Your task to perform on an android device: Open Youtube and go to the subscriptions tab Image 0: 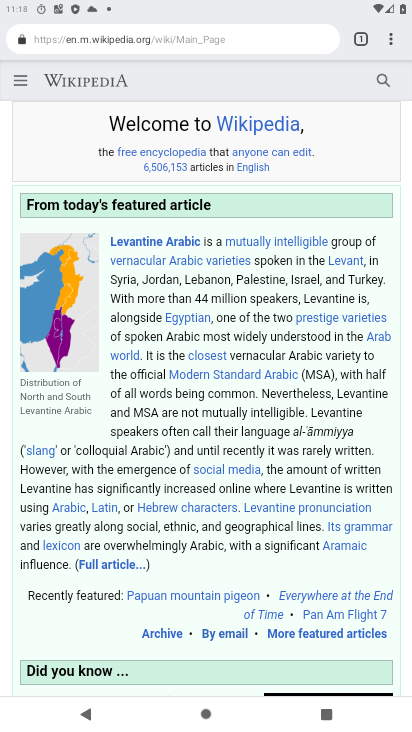
Step 0: press back button
Your task to perform on an android device: Open Youtube and go to the subscriptions tab Image 1: 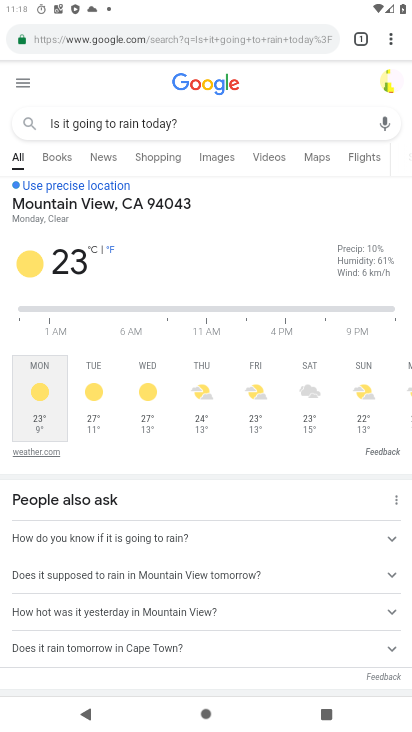
Step 1: press home button
Your task to perform on an android device: Open Youtube and go to the subscriptions tab Image 2: 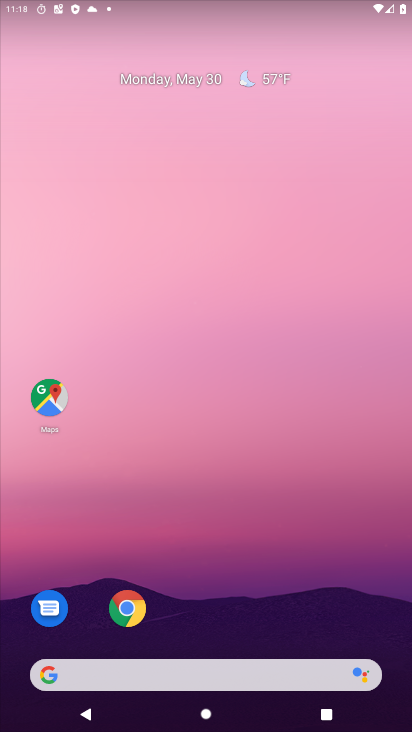
Step 2: drag from (229, 603) to (211, 0)
Your task to perform on an android device: Open Youtube and go to the subscriptions tab Image 3: 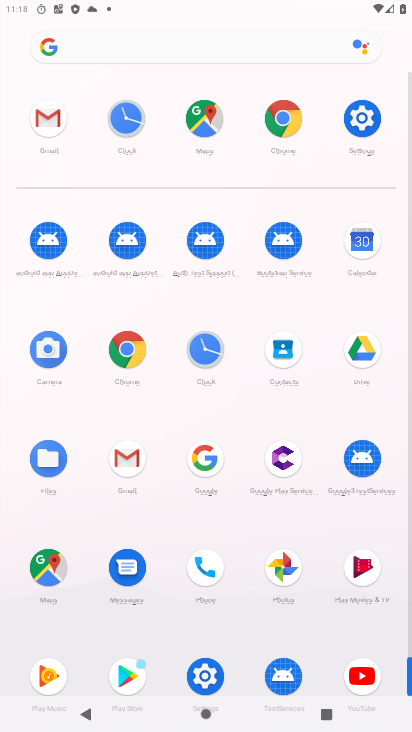
Step 3: drag from (10, 610) to (22, 262)
Your task to perform on an android device: Open Youtube and go to the subscriptions tab Image 4: 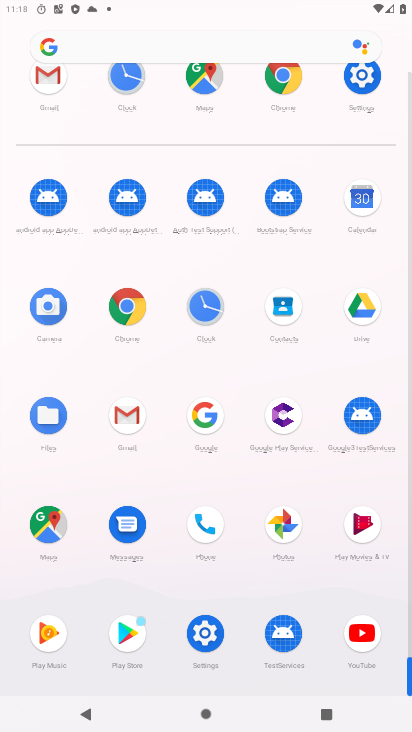
Step 4: click (369, 619)
Your task to perform on an android device: Open Youtube and go to the subscriptions tab Image 5: 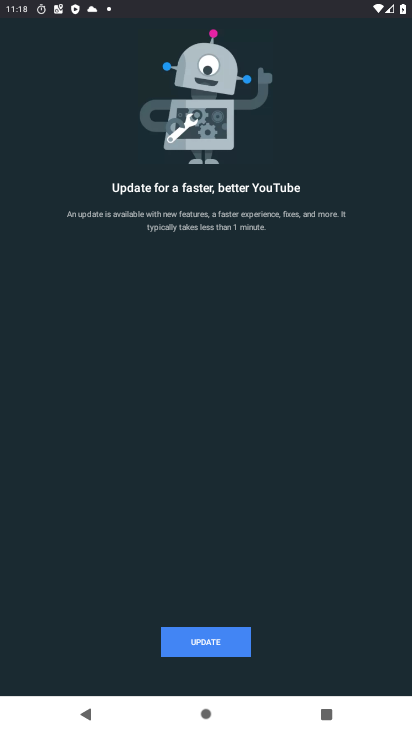
Step 5: click (228, 641)
Your task to perform on an android device: Open Youtube and go to the subscriptions tab Image 6: 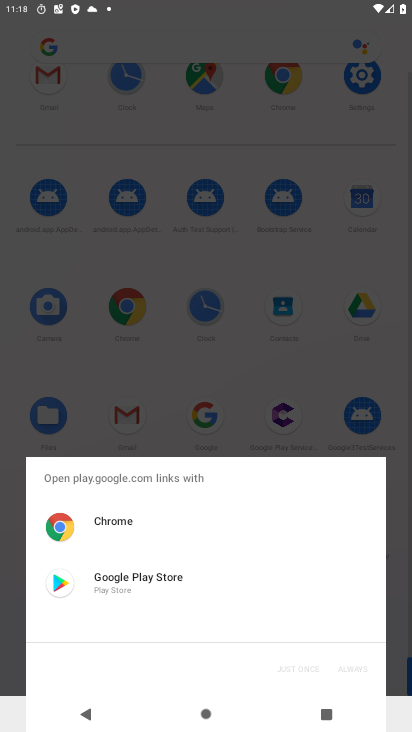
Step 6: click (146, 575)
Your task to perform on an android device: Open Youtube and go to the subscriptions tab Image 7: 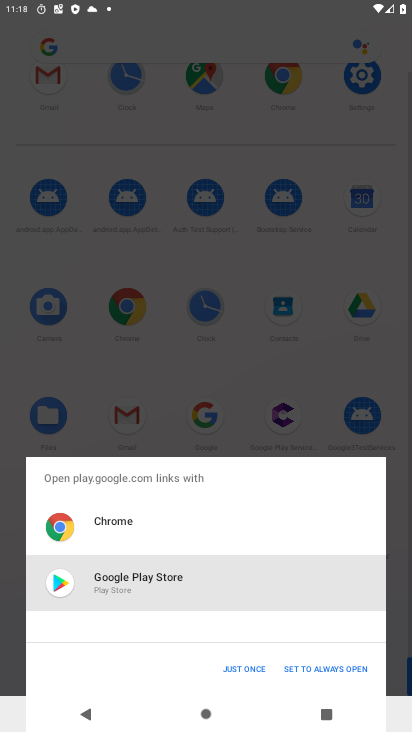
Step 7: click (239, 663)
Your task to perform on an android device: Open Youtube and go to the subscriptions tab Image 8: 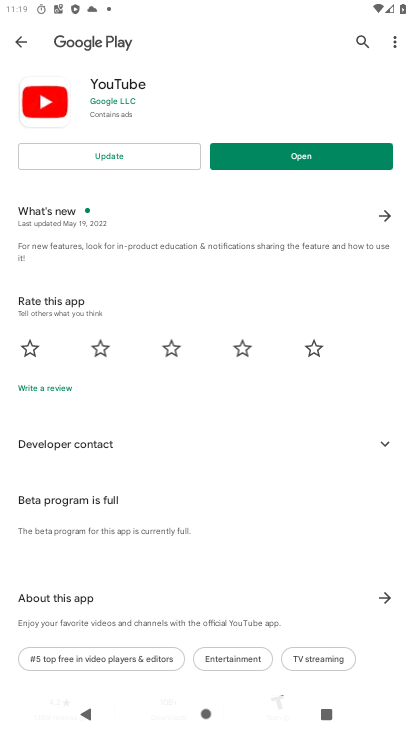
Step 8: click (287, 150)
Your task to perform on an android device: Open Youtube and go to the subscriptions tab Image 9: 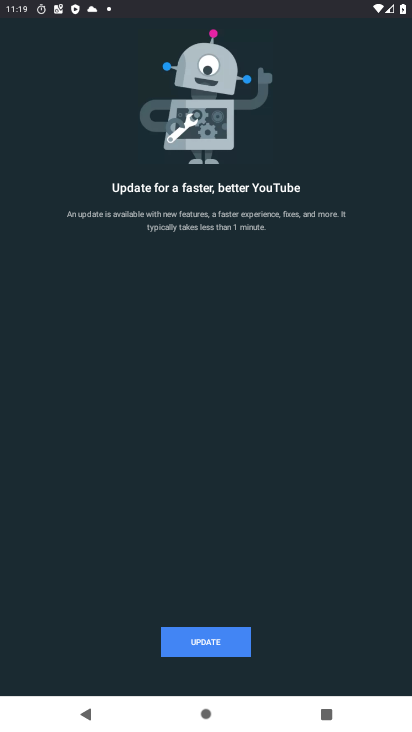
Step 9: click (208, 646)
Your task to perform on an android device: Open Youtube and go to the subscriptions tab Image 10: 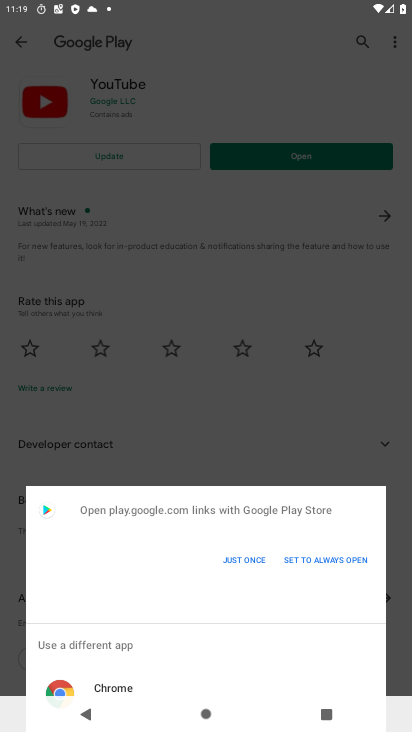
Step 10: click (233, 561)
Your task to perform on an android device: Open Youtube and go to the subscriptions tab Image 11: 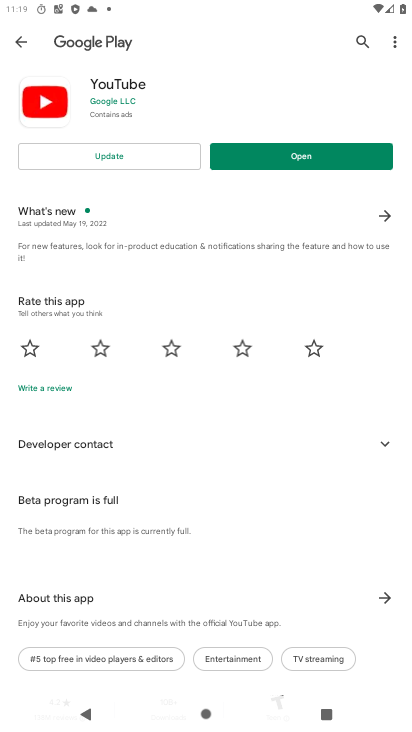
Step 11: click (119, 160)
Your task to perform on an android device: Open Youtube and go to the subscriptions tab Image 12: 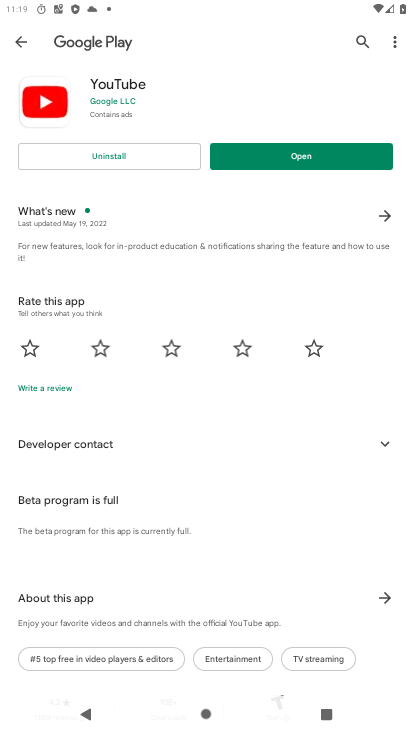
Step 12: click (275, 158)
Your task to perform on an android device: Open Youtube and go to the subscriptions tab Image 13: 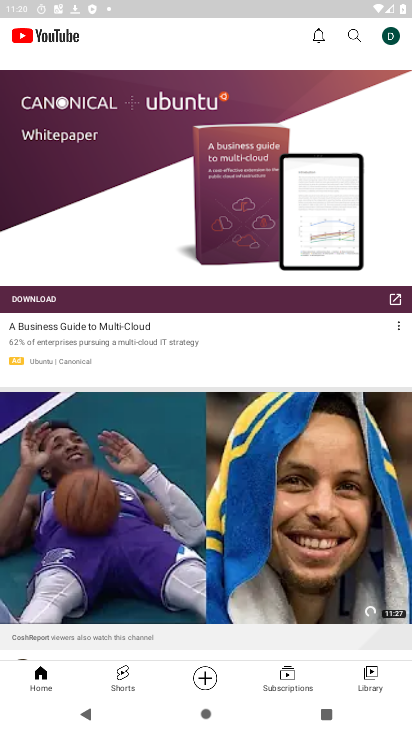
Step 13: click (295, 680)
Your task to perform on an android device: Open Youtube and go to the subscriptions tab Image 14: 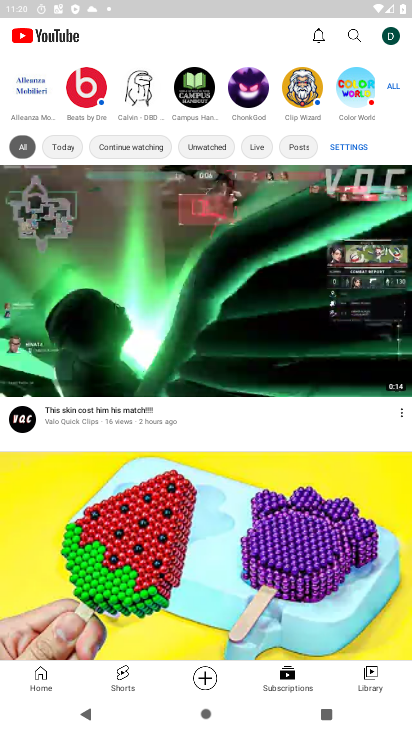
Step 14: task complete